Your task to perform on an android device: turn on airplane mode Image 0: 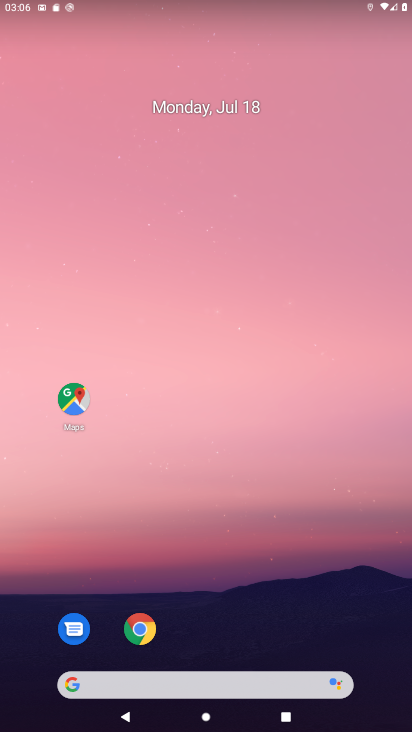
Step 0: drag from (338, 635) to (368, 233)
Your task to perform on an android device: turn on airplane mode Image 1: 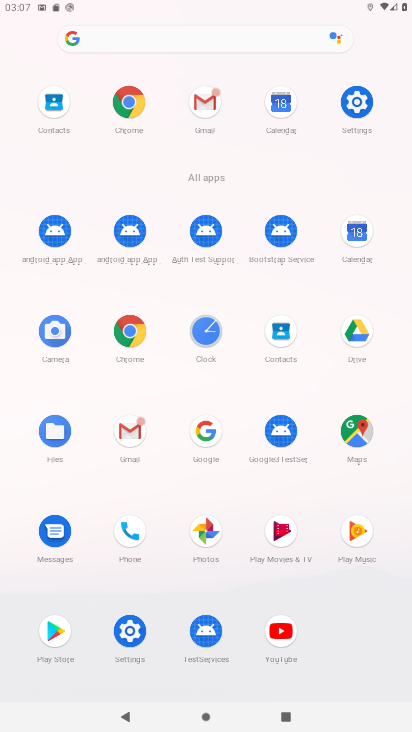
Step 1: click (359, 108)
Your task to perform on an android device: turn on airplane mode Image 2: 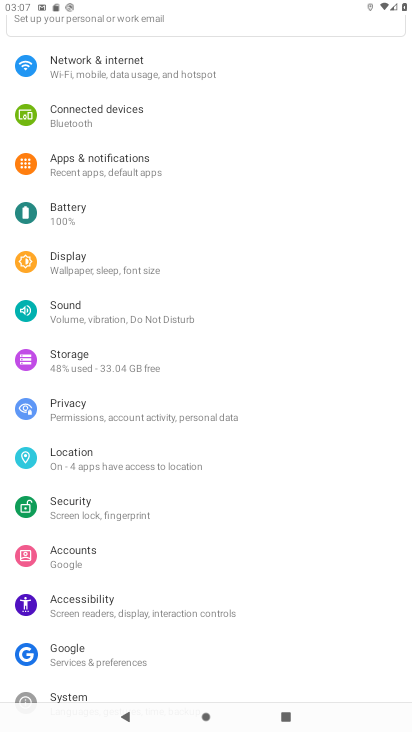
Step 2: drag from (354, 478) to (353, 396)
Your task to perform on an android device: turn on airplane mode Image 3: 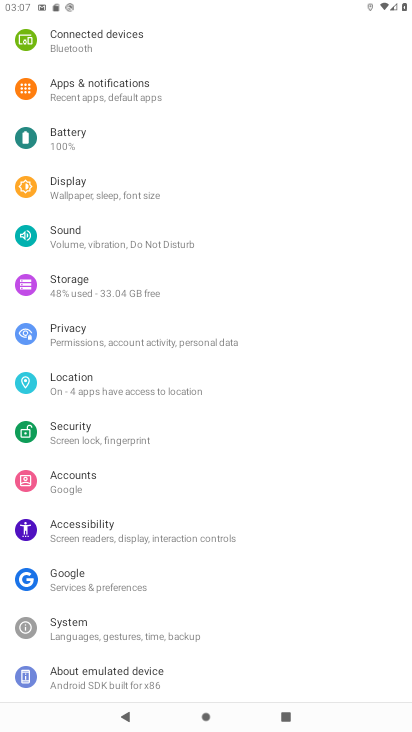
Step 3: drag from (339, 506) to (341, 346)
Your task to perform on an android device: turn on airplane mode Image 4: 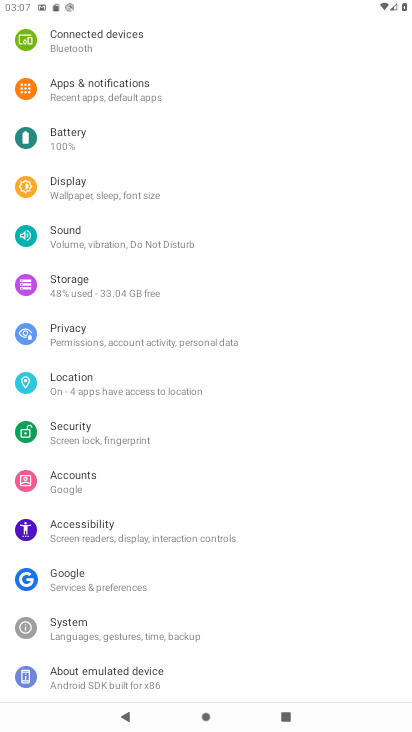
Step 4: drag from (328, 341) to (323, 470)
Your task to perform on an android device: turn on airplane mode Image 5: 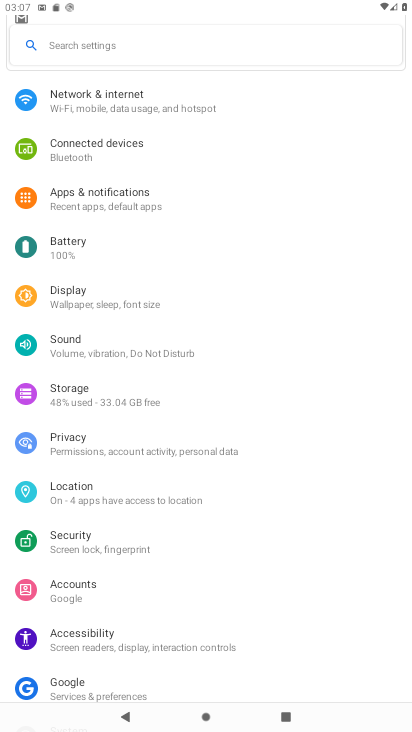
Step 5: drag from (335, 241) to (344, 436)
Your task to perform on an android device: turn on airplane mode Image 6: 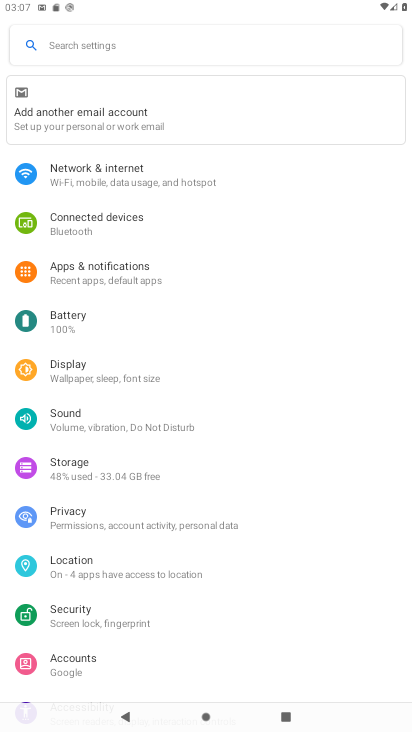
Step 6: click (190, 180)
Your task to perform on an android device: turn on airplane mode Image 7: 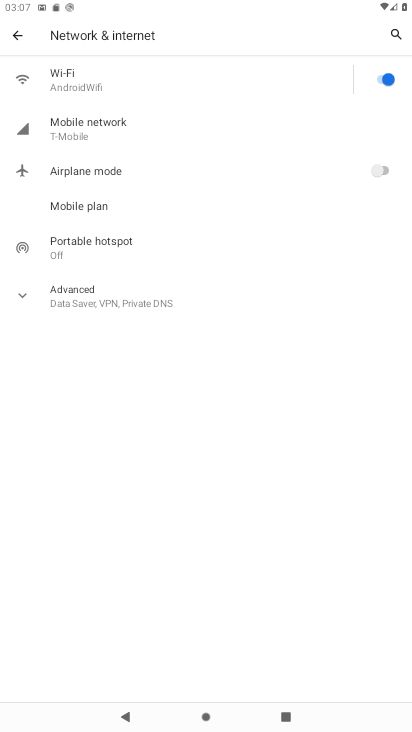
Step 7: click (368, 170)
Your task to perform on an android device: turn on airplane mode Image 8: 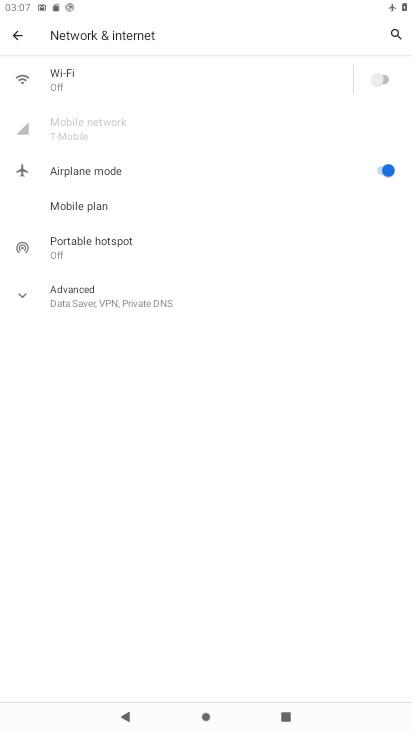
Step 8: task complete